Your task to perform on an android device: Open Android settings Image 0: 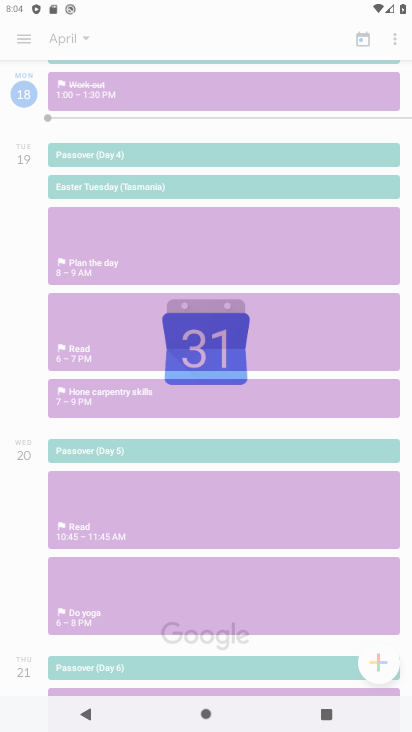
Step 0: click (53, 398)
Your task to perform on an android device: Open Android settings Image 1: 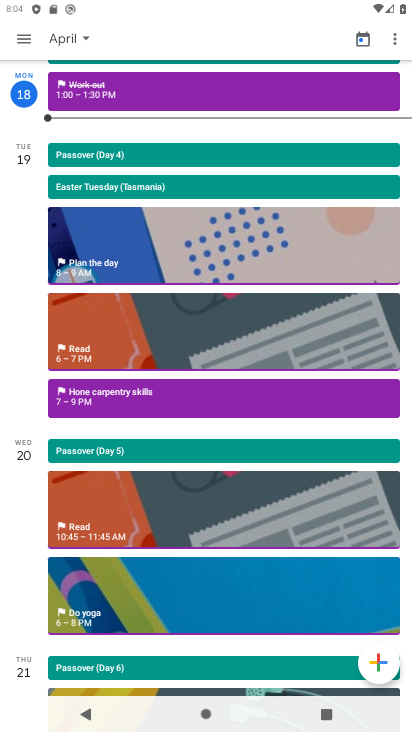
Step 1: press home button
Your task to perform on an android device: Open Android settings Image 2: 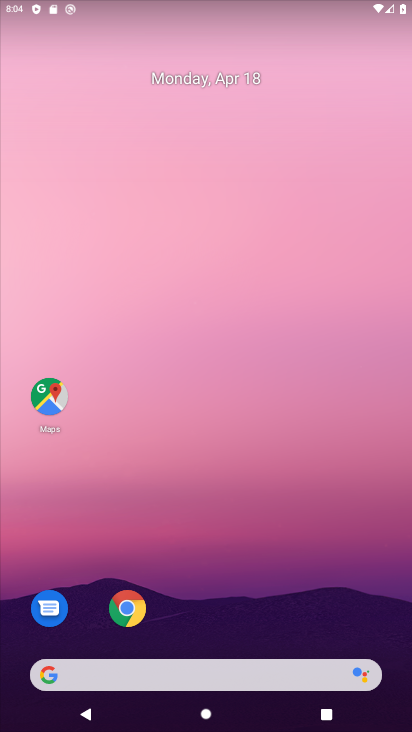
Step 2: drag from (249, 542) to (225, 198)
Your task to perform on an android device: Open Android settings Image 3: 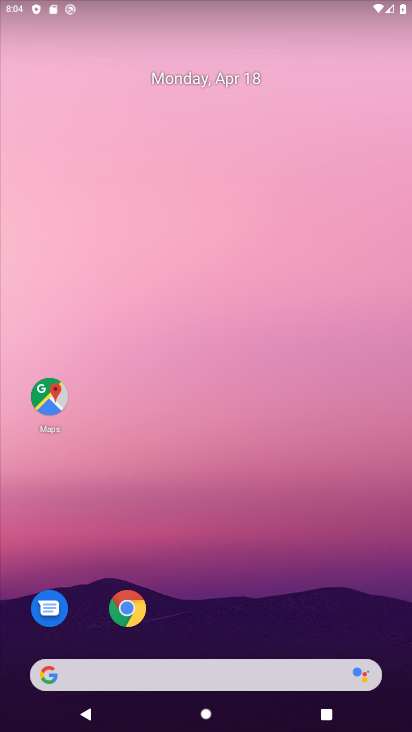
Step 3: drag from (212, 582) to (251, 197)
Your task to perform on an android device: Open Android settings Image 4: 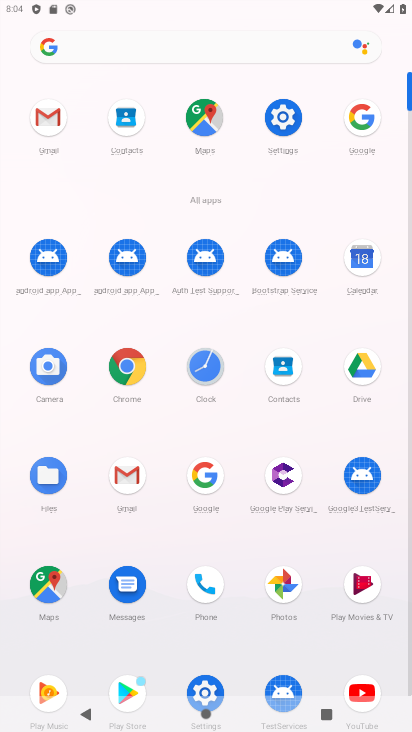
Step 4: click (287, 113)
Your task to perform on an android device: Open Android settings Image 5: 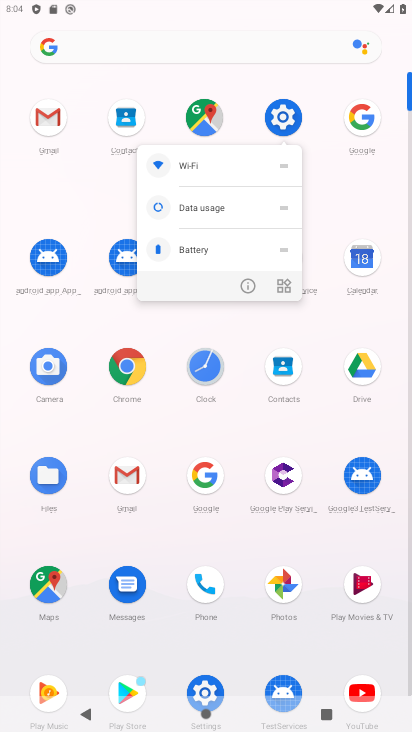
Step 5: click (277, 114)
Your task to perform on an android device: Open Android settings Image 6: 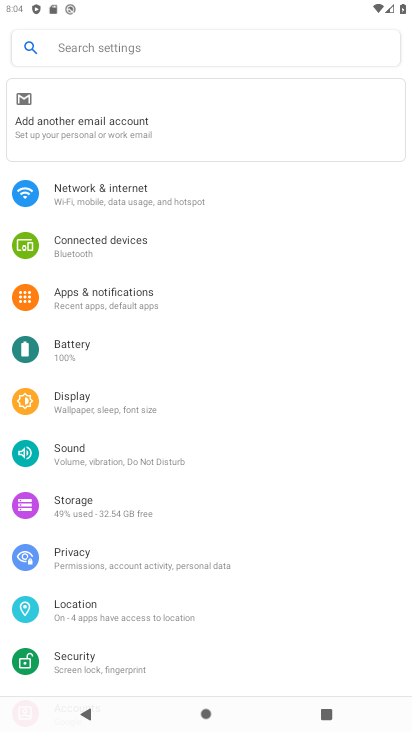
Step 6: drag from (248, 556) to (237, 70)
Your task to perform on an android device: Open Android settings Image 7: 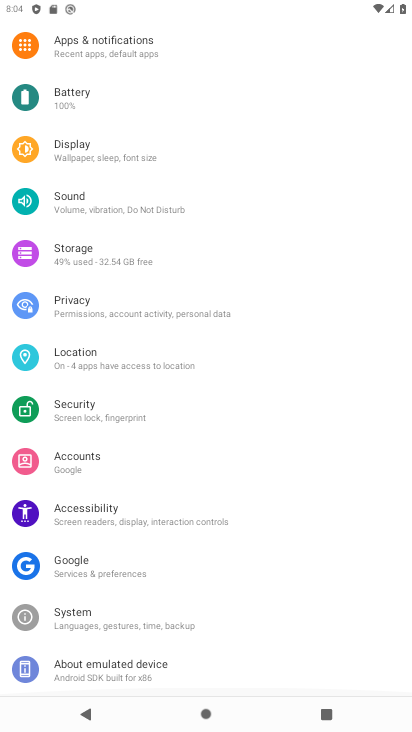
Step 7: click (124, 674)
Your task to perform on an android device: Open Android settings Image 8: 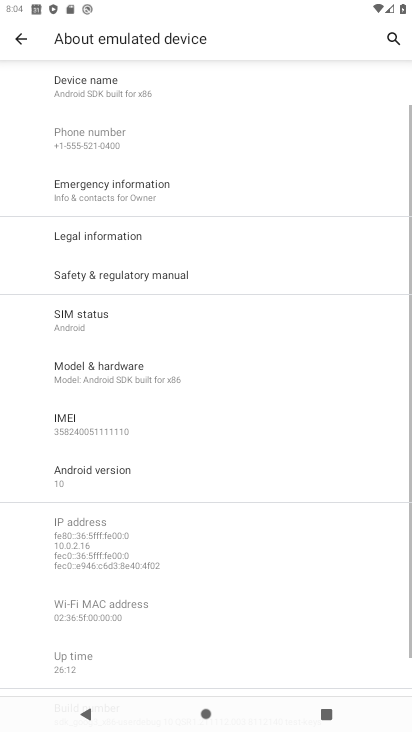
Step 8: task complete